Your task to perform on an android device: clear all cookies in the chrome app Image 0: 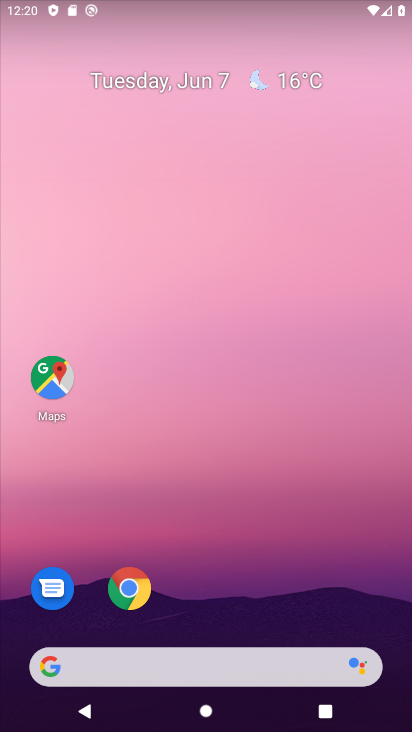
Step 0: task complete